Your task to perform on an android device: snooze an email in the gmail app Image 0: 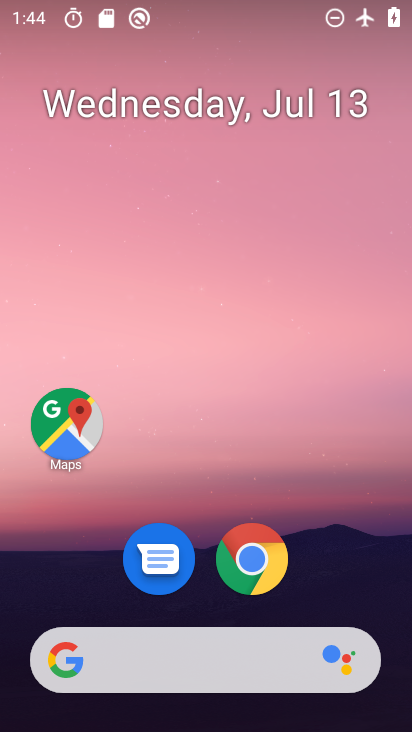
Step 0: drag from (190, 608) to (251, 232)
Your task to perform on an android device: snooze an email in the gmail app Image 1: 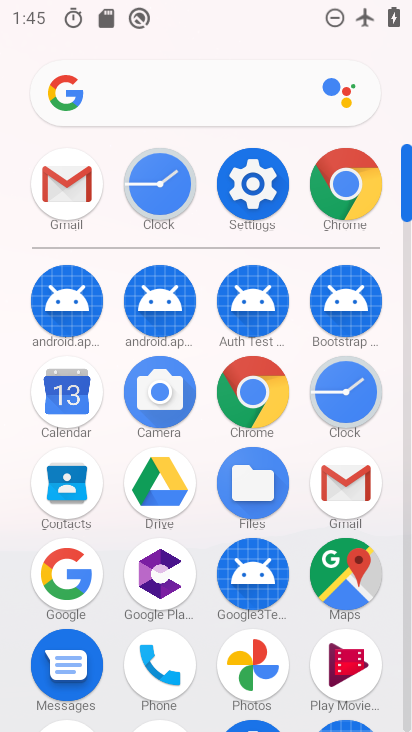
Step 1: drag from (168, 505) to (221, 380)
Your task to perform on an android device: snooze an email in the gmail app Image 2: 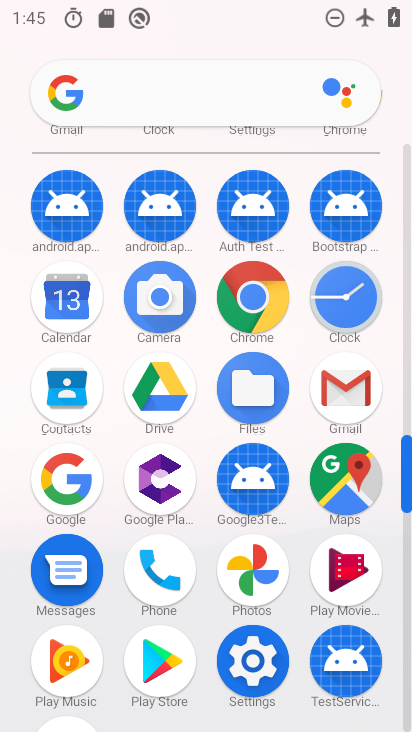
Step 2: click (350, 417)
Your task to perform on an android device: snooze an email in the gmail app Image 3: 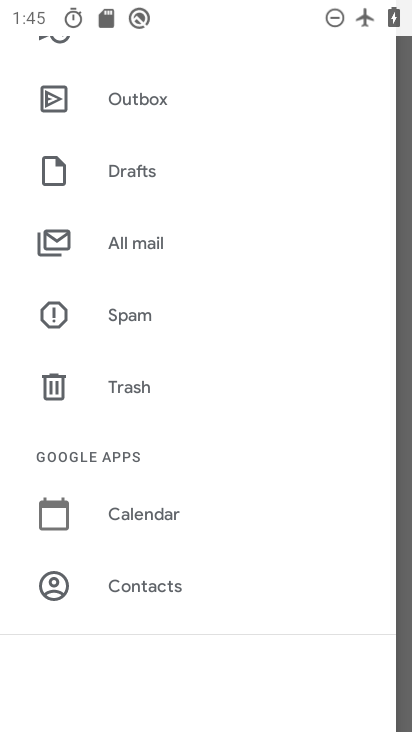
Step 3: drag from (152, 332) to (141, 599)
Your task to perform on an android device: snooze an email in the gmail app Image 4: 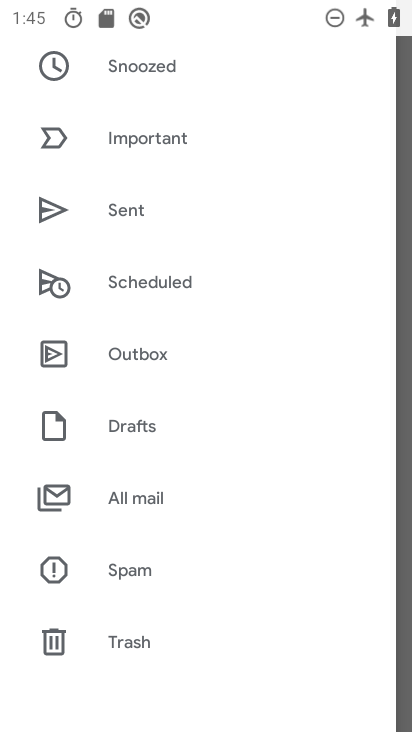
Step 4: drag from (133, 367) to (132, 446)
Your task to perform on an android device: snooze an email in the gmail app Image 5: 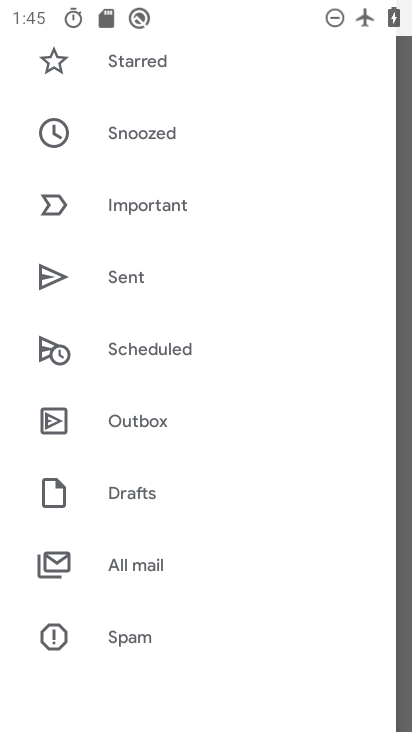
Step 5: click (142, 566)
Your task to perform on an android device: snooze an email in the gmail app Image 6: 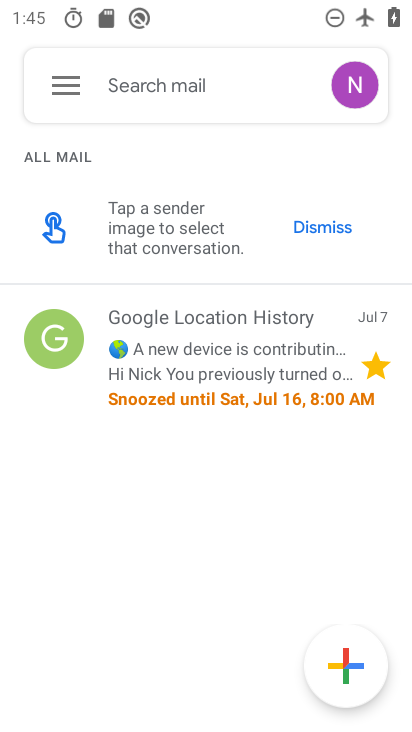
Step 6: click (142, 415)
Your task to perform on an android device: snooze an email in the gmail app Image 7: 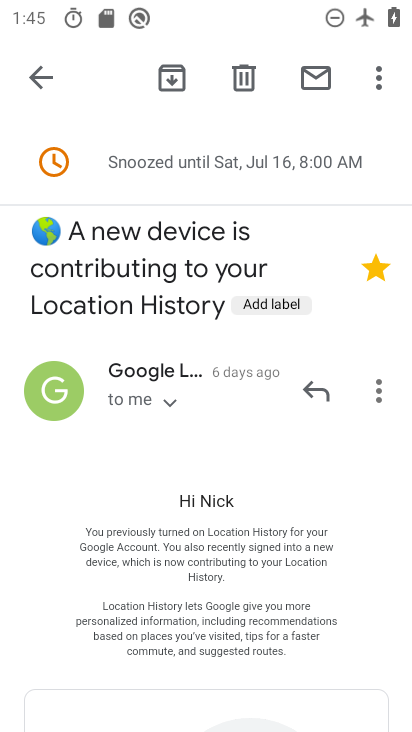
Step 7: click (384, 89)
Your task to perform on an android device: snooze an email in the gmail app Image 8: 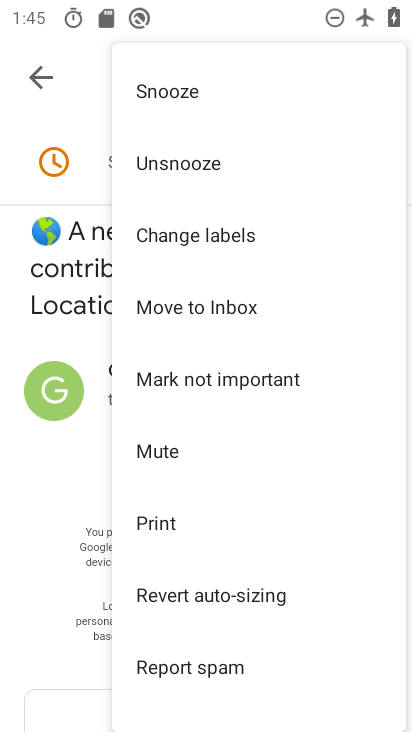
Step 8: click (202, 94)
Your task to perform on an android device: snooze an email in the gmail app Image 9: 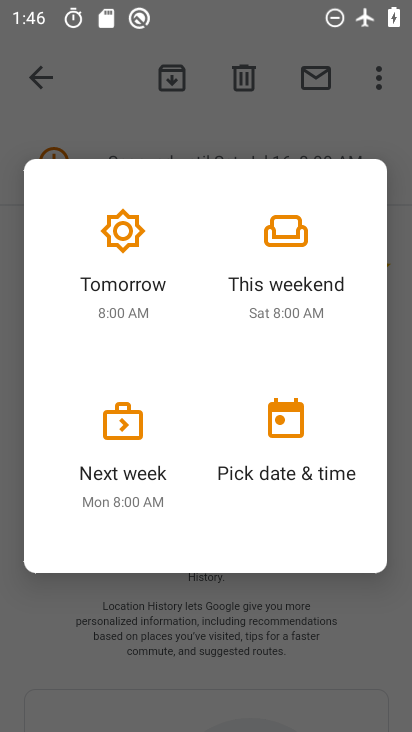
Step 9: click (131, 455)
Your task to perform on an android device: snooze an email in the gmail app Image 10: 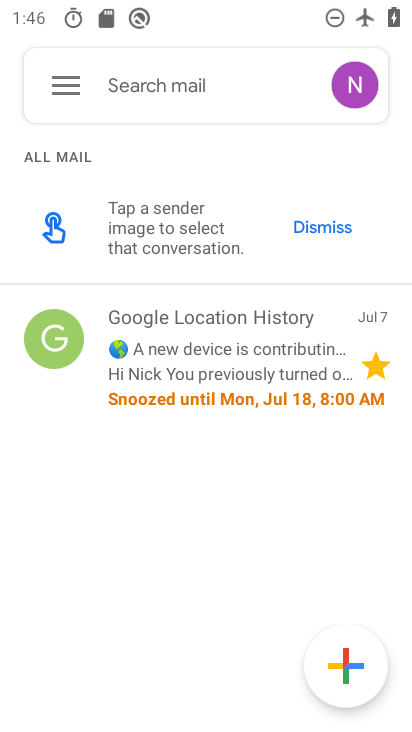
Step 10: task complete